Your task to perform on an android device: toggle wifi Image 0: 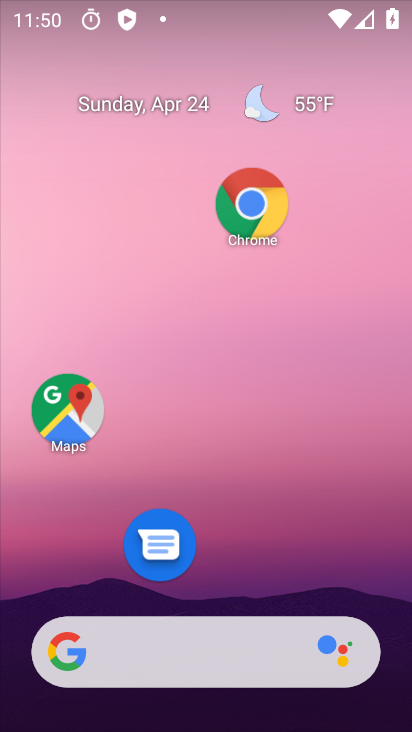
Step 0: drag from (314, 642) to (246, 171)
Your task to perform on an android device: toggle wifi Image 1: 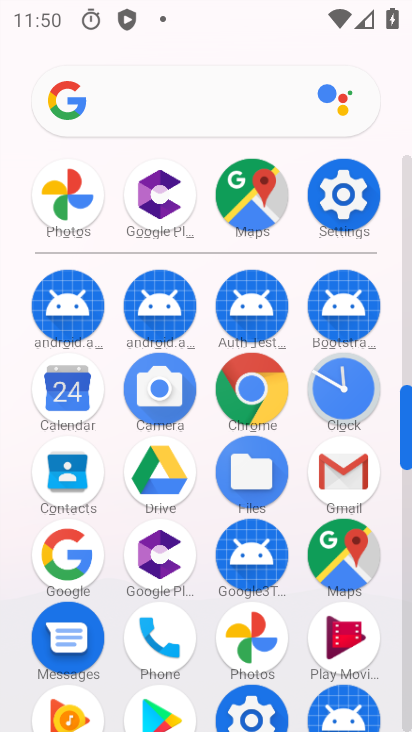
Step 1: click (332, 201)
Your task to perform on an android device: toggle wifi Image 2: 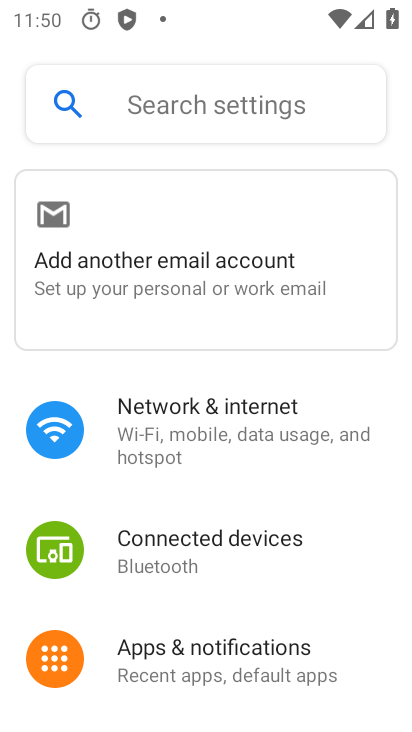
Step 2: click (180, 431)
Your task to perform on an android device: toggle wifi Image 3: 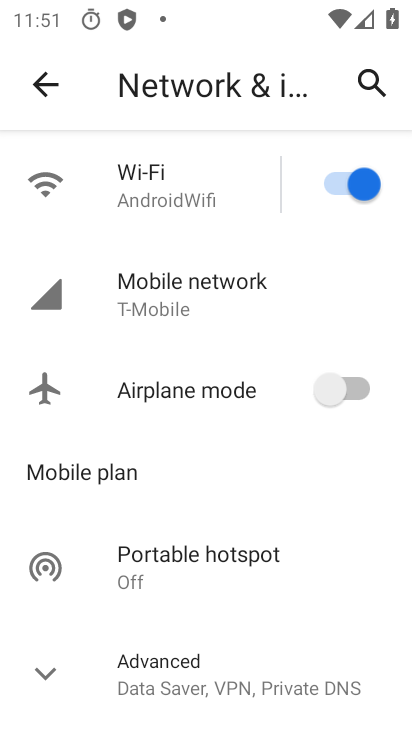
Step 3: click (165, 175)
Your task to perform on an android device: toggle wifi Image 4: 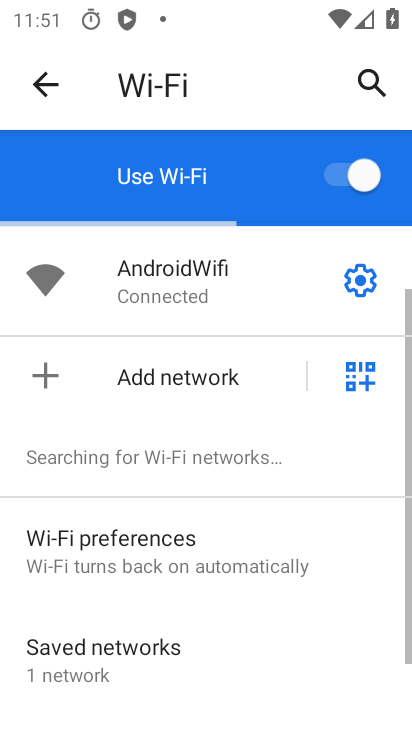
Step 4: task complete